Your task to perform on an android device: Go to location settings Image 0: 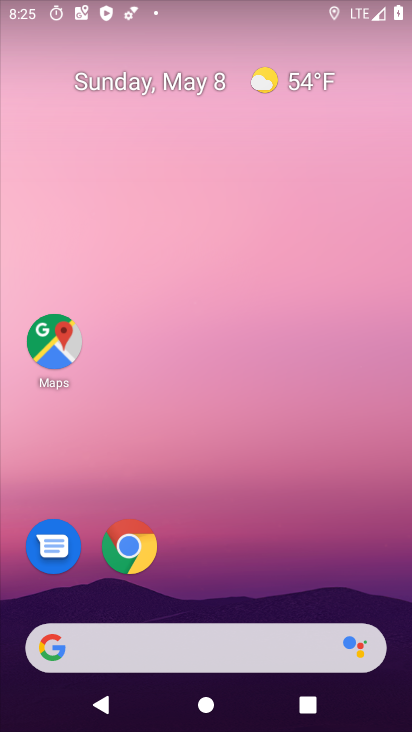
Step 0: drag from (398, 619) to (387, 256)
Your task to perform on an android device: Go to location settings Image 1: 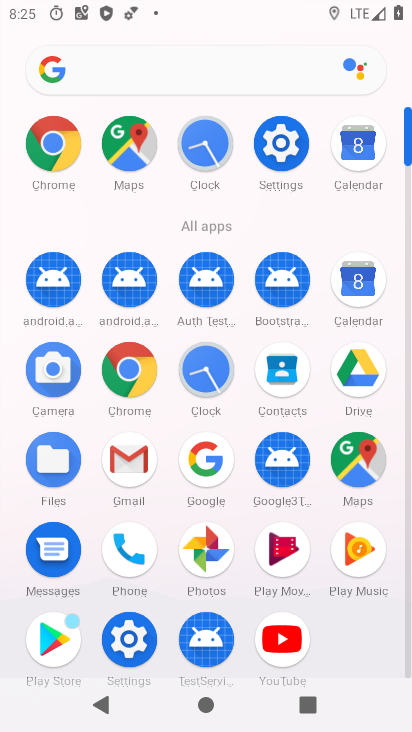
Step 1: click (267, 147)
Your task to perform on an android device: Go to location settings Image 2: 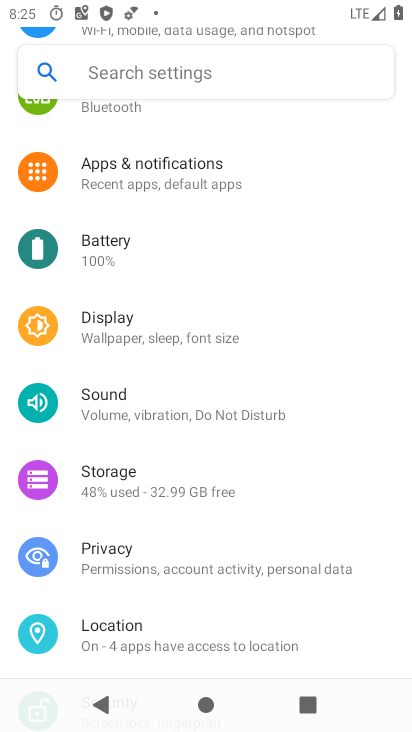
Step 2: click (110, 621)
Your task to perform on an android device: Go to location settings Image 3: 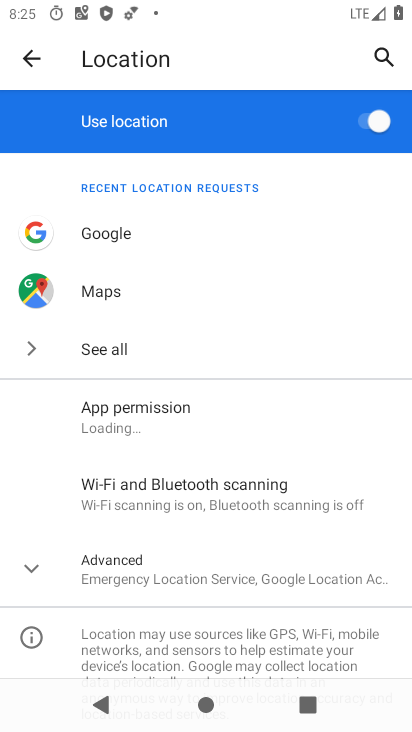
Step 3: task complete